Your task to perform on an android device: Open my contact list Image 0: 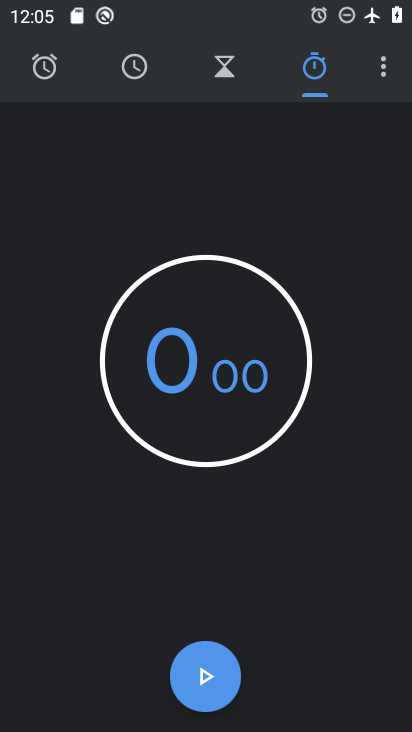
Step 0: press home button
Your task to perform on an android device: Open my contact list Image 1: 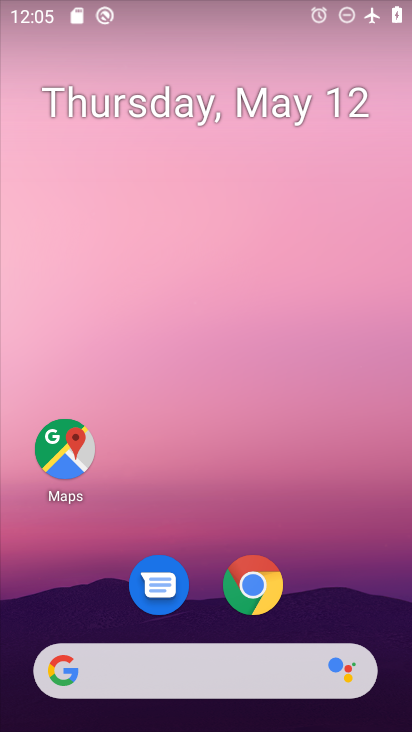
Step 1: drag from (246, 449) to (261, 44)
Your task to perform on an android device: Open my contact list Image 2: 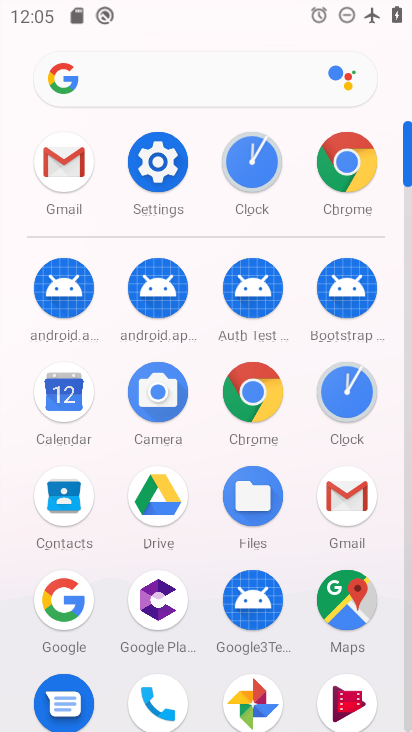
Step 2: click (67, 498)
Your task to perform on an android device: Open my contact list Image 3: 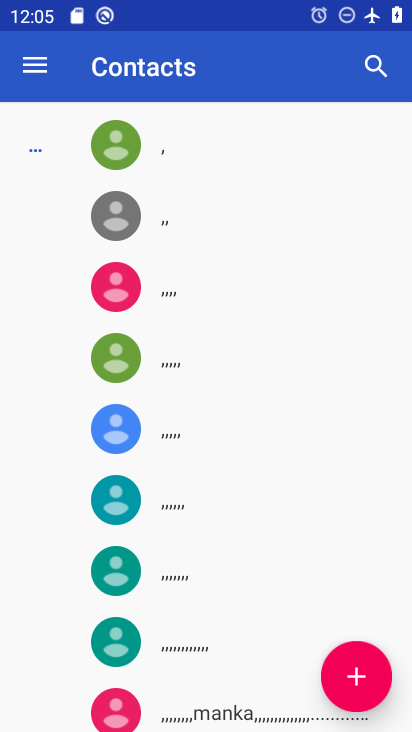
Step 3: task complete